Your task to perform on an android device: Open Youtube and go to "Your channel" Image 0: 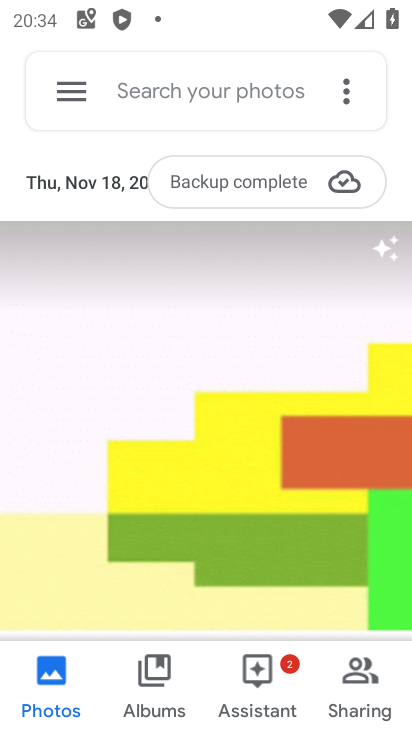
Step 0: press home button
Your task to perform on an android device: Open Youtube and go to "Your channel" Image 1: 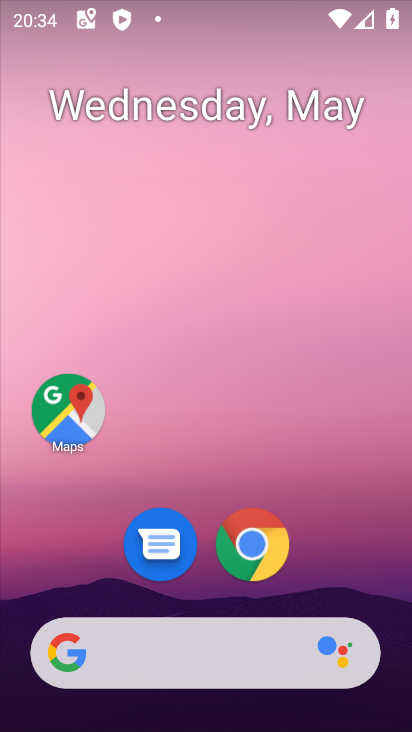
Step 1: drag from (191, 598) to (159, 97)
Your task to perform on an android device: Open Youtube and go to "Your channel" Image 2: 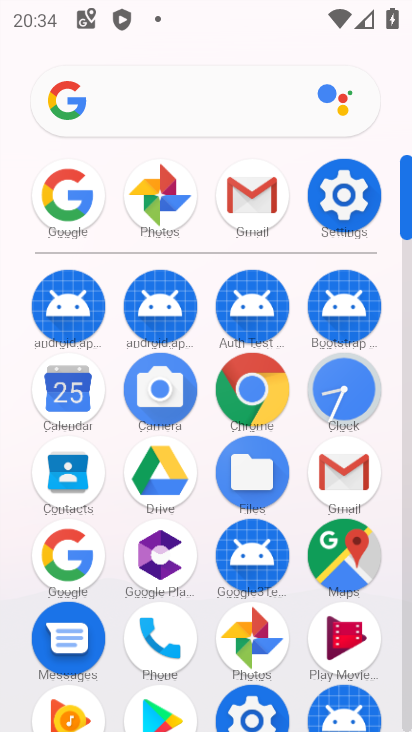
Step 2: drag from (214, 676) to (241, 80)
Your task to perform on an android device: Open Youtube and go to "Your channel" Image 3: 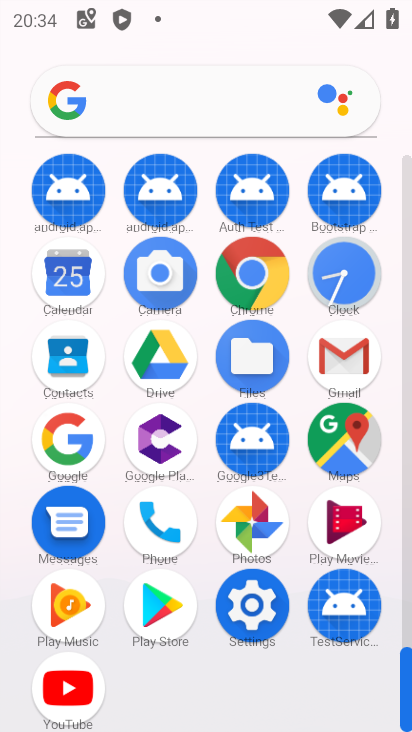
Step 3: click (63, 675)
Your task to perform on an android device: Open Youtube and go to "Your channel" Image 4: 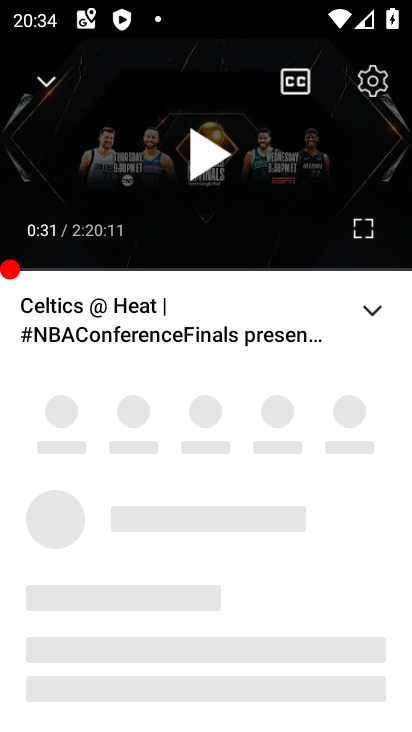
Step 4: click (40, 91)
Your task to perform on an android device: Open Youtube and go to "Your channel" Image 5: 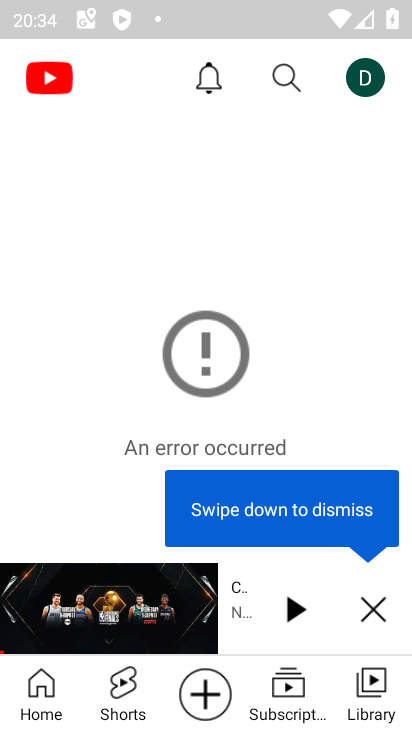
Step 5: click (292, 72)
Your task to perform on an android device: Open Youtube and go to "Your channel" Image 6: 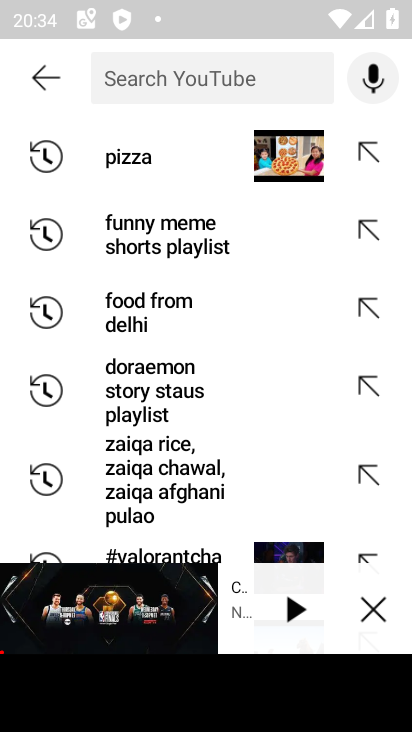
Step 6: type "your  channel"
Your task to perform on an android device: Open Youtube and go to "Your channel" Image 7: 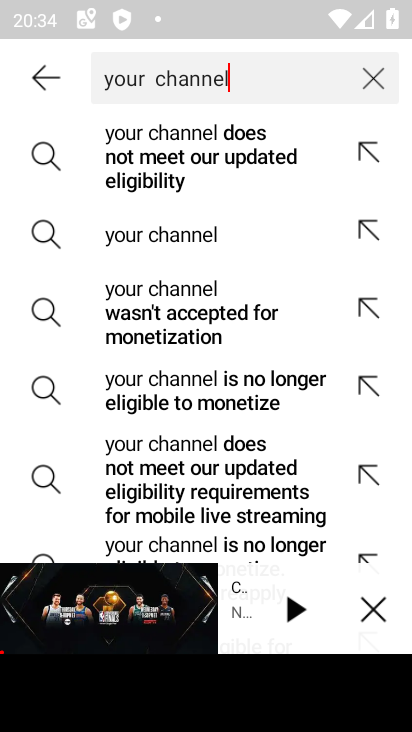
Step 7: click (151, 253)
Your task to perform on an android device: Open Youtube and go to "Your channel" Image 8: 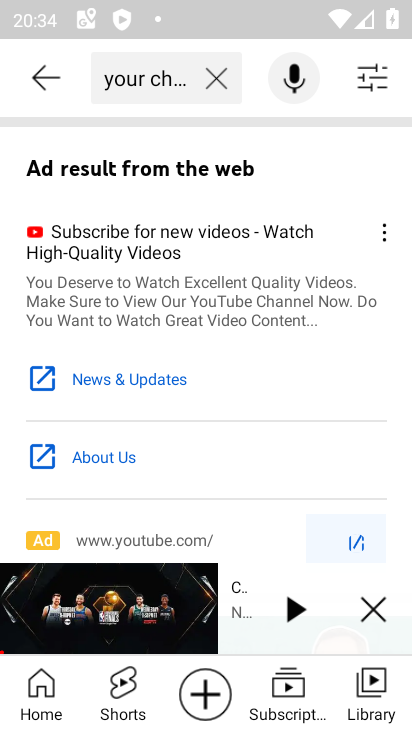
Step 8: task complete